Your task to perform on an android device: install app "Pandora - Music & Podcasts" Image 0: 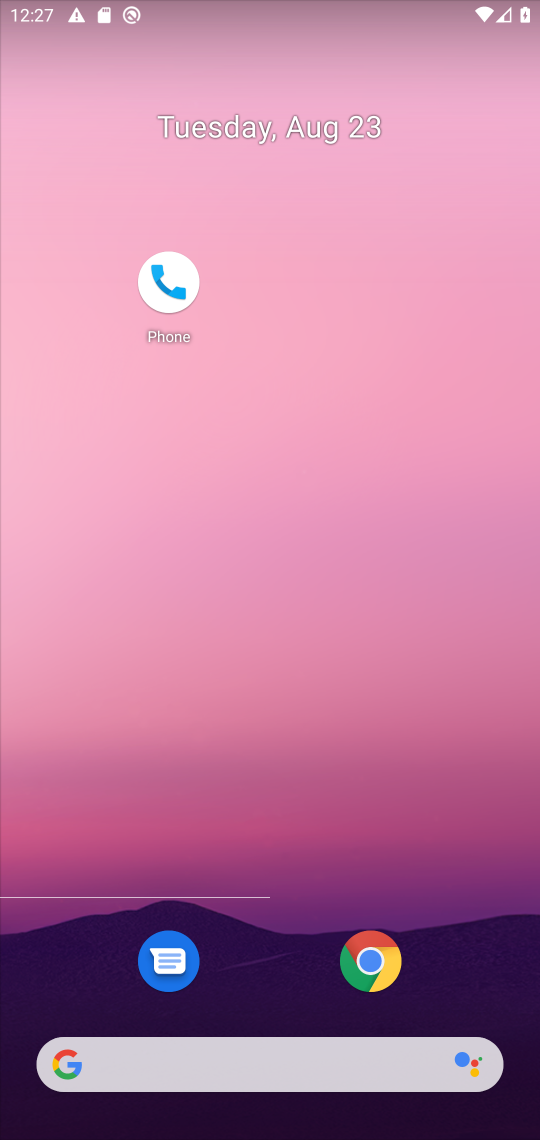
Step 0: drag from (282, 966) to (280, 85)
Your task to perform on an android device: install app "Pandora - Music & Podcasts" Image 1: 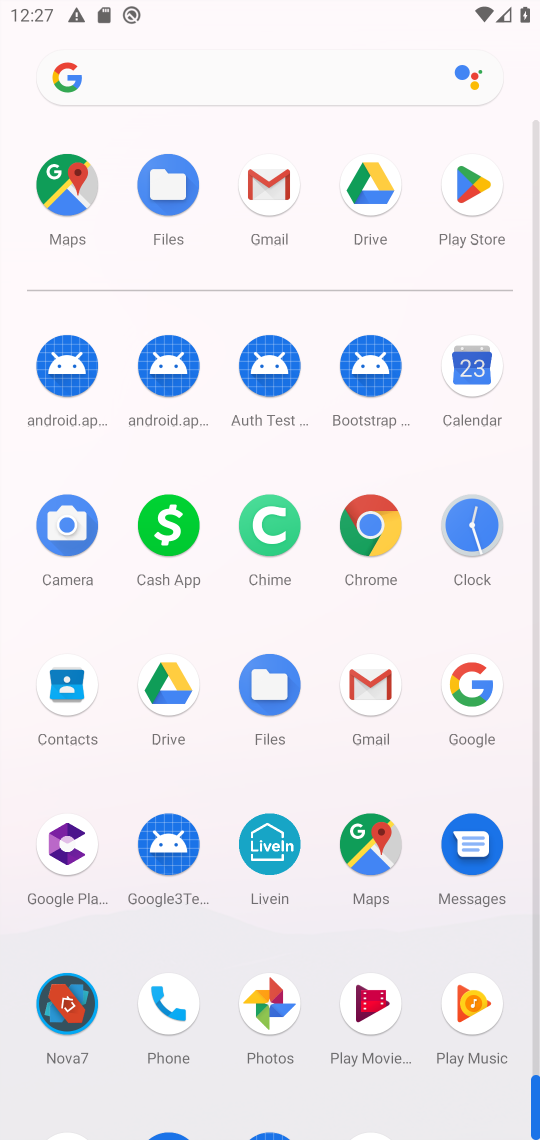
Step 1: click (445, 241)
Your task to perform on an android device: install app "Pandora - Music & Podcasts" Image 2: 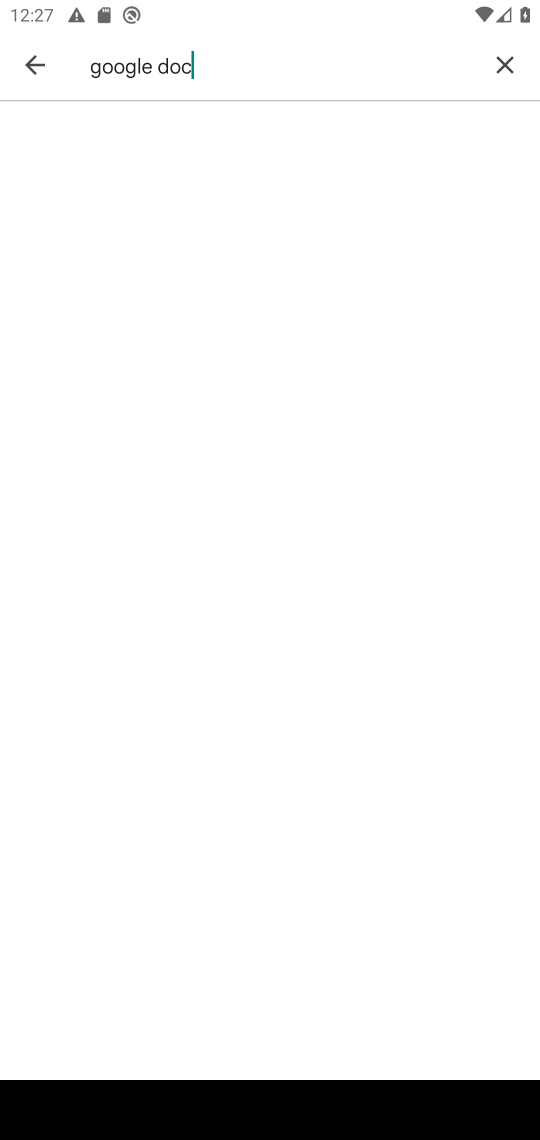
Step 2: press home button
Your task to perform on an android device: install app "Pandora - Music & Podcasts" Image 3: 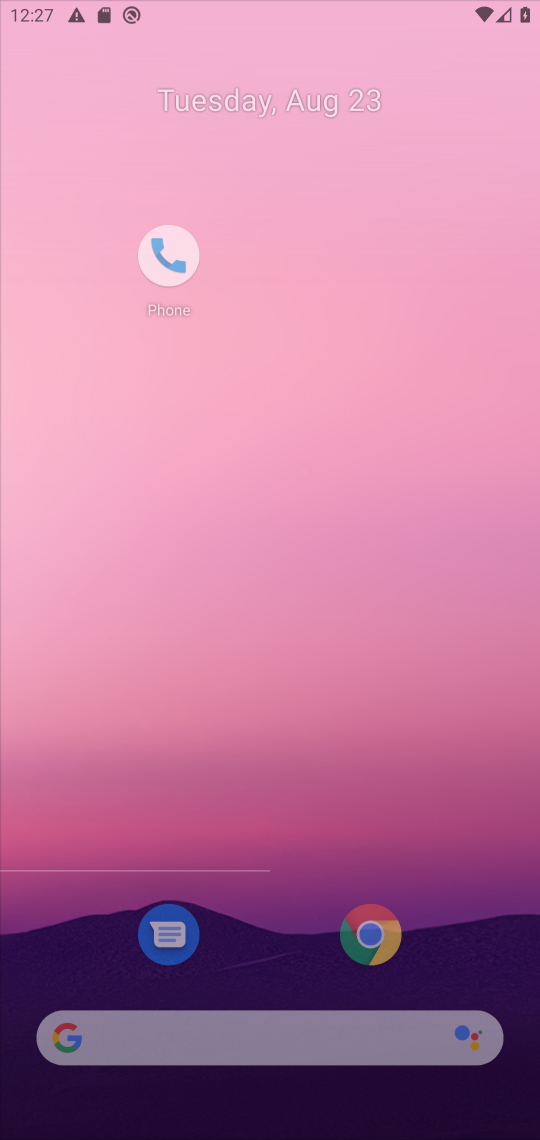
Step 3: click (321, 183)
Your task to perform on an android device: install app "Pandora - Music & Podcasts" Image 4: 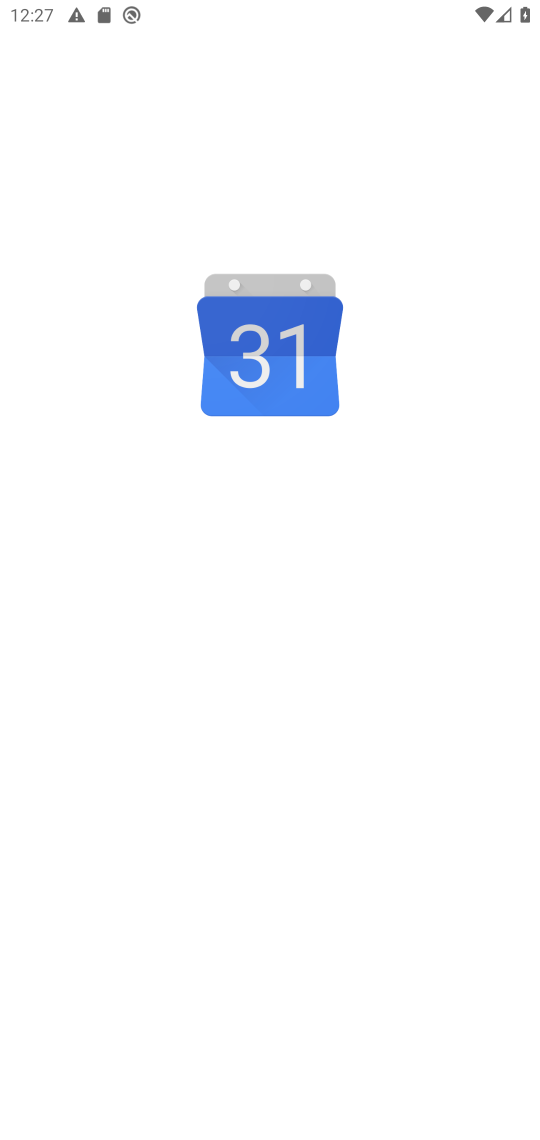
Step 4: drag from (295, 977) to (416, 395)
Your task to perform on an android device: install app "Pandora - Music & Podcasts" Image 5: 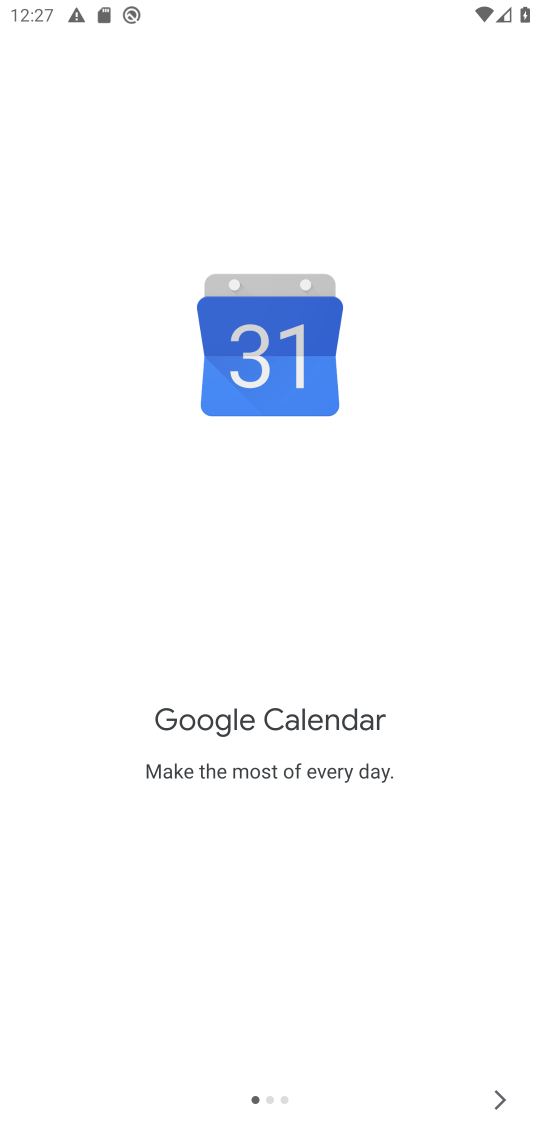
Step 5: press home button
Your task to perform on an android device: install app "Pandora - Music & Podcasts" Image 6: 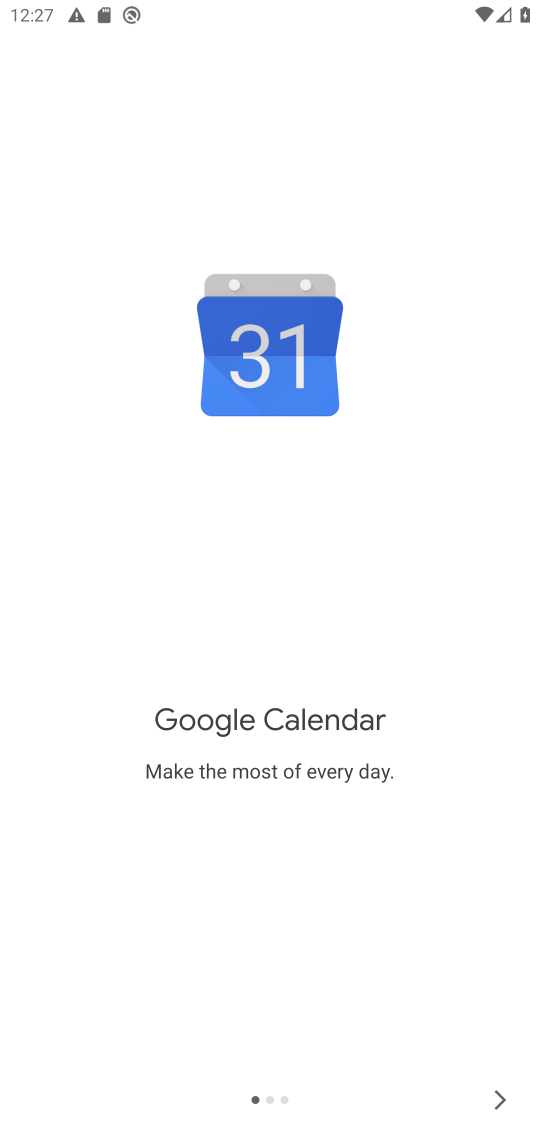
Step 6: press home button
Your task to perform on an android device: install app "Pandora - Music & Podcasts" Image 7: 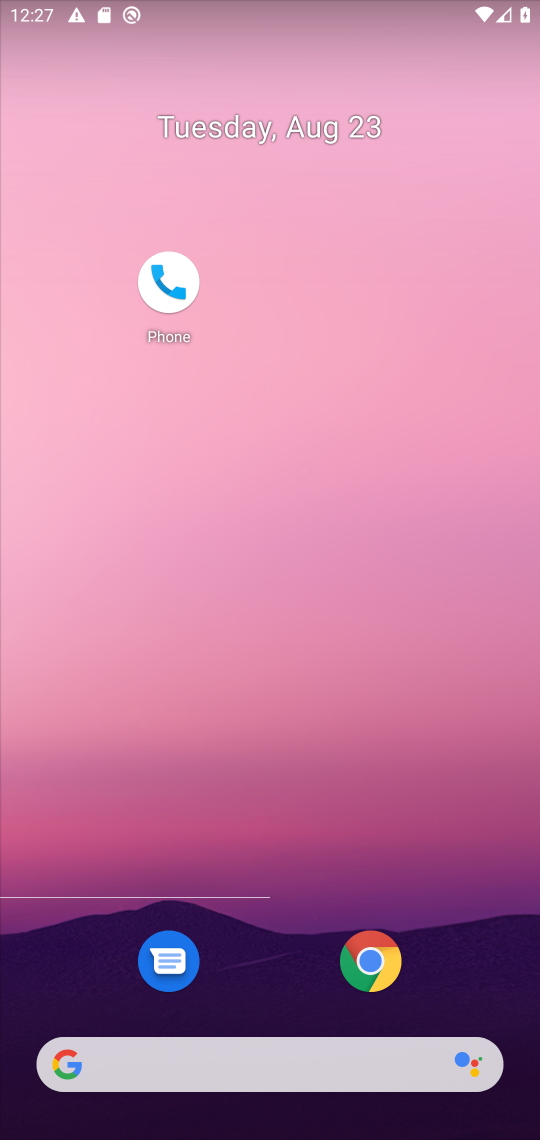
Step 7: drag from (283, 1007) to (292, 162)
Your task to perform on an android device: install app "Pandora - Music & Podcasts" Image 8: 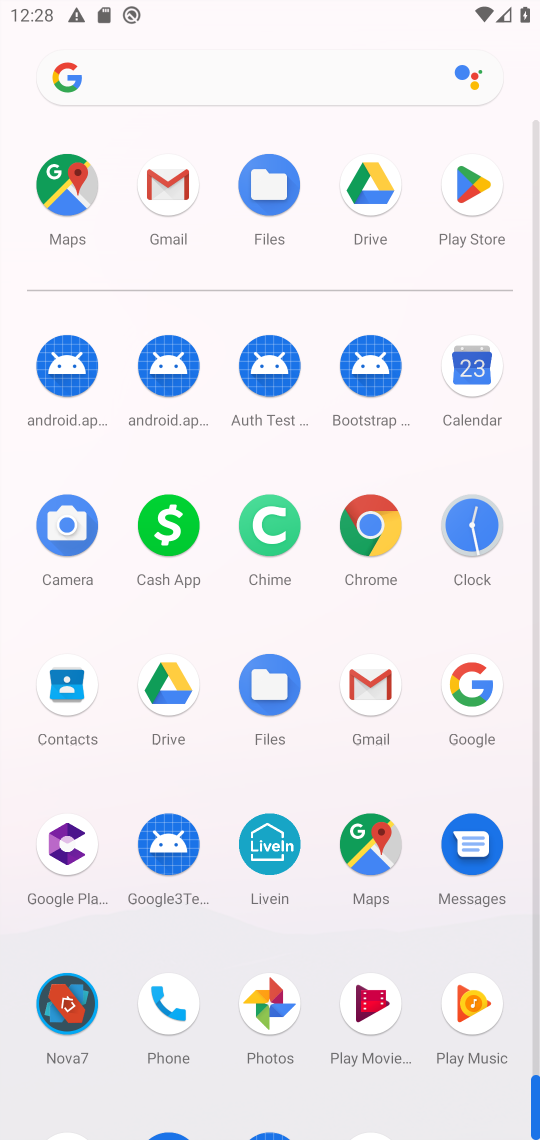
Step 8: click (473, 205)
Your task to perform on an android device: install app "Pandora - Music & Podcasts" Image 9: 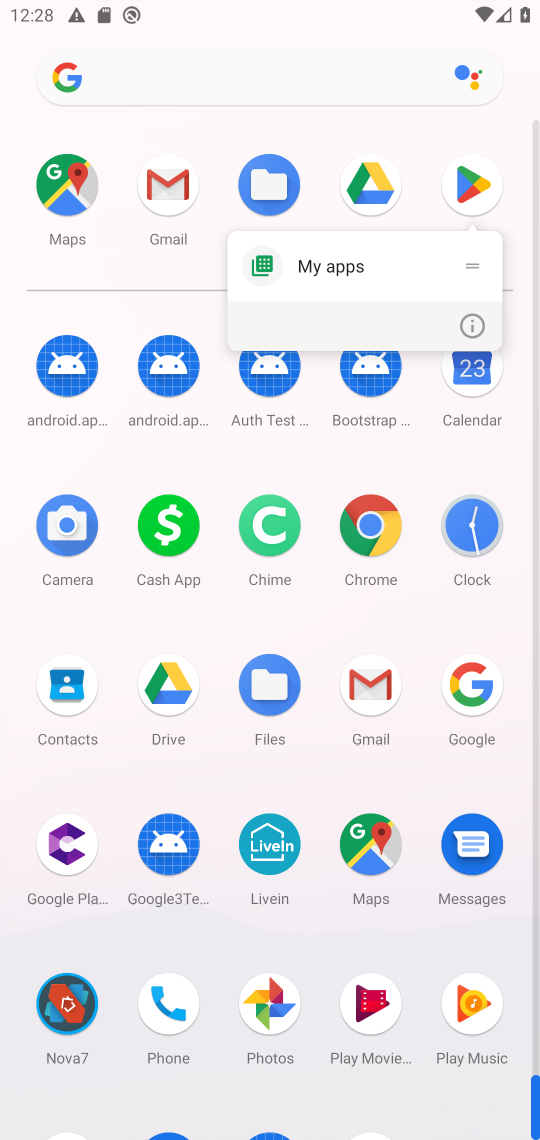
Step 9: click (473, 205)
Your task to perform on an android device: install app "Pandora - Music & Podcasts" Image 10: 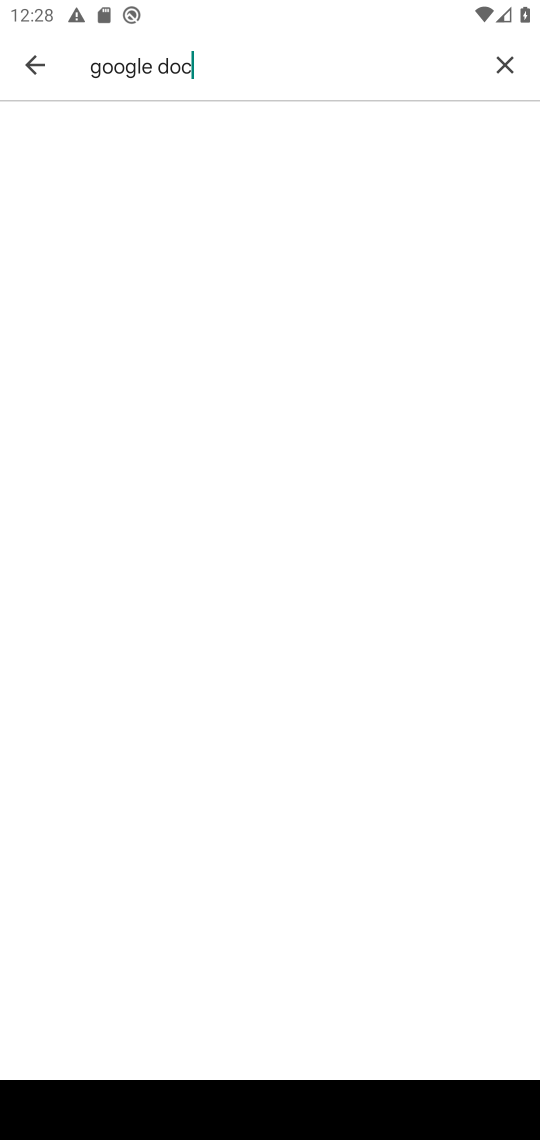
Step 10: click (493, 56)
Your task to perform on an android device: install app "Pandora - Music & Podcasts" Image 11: 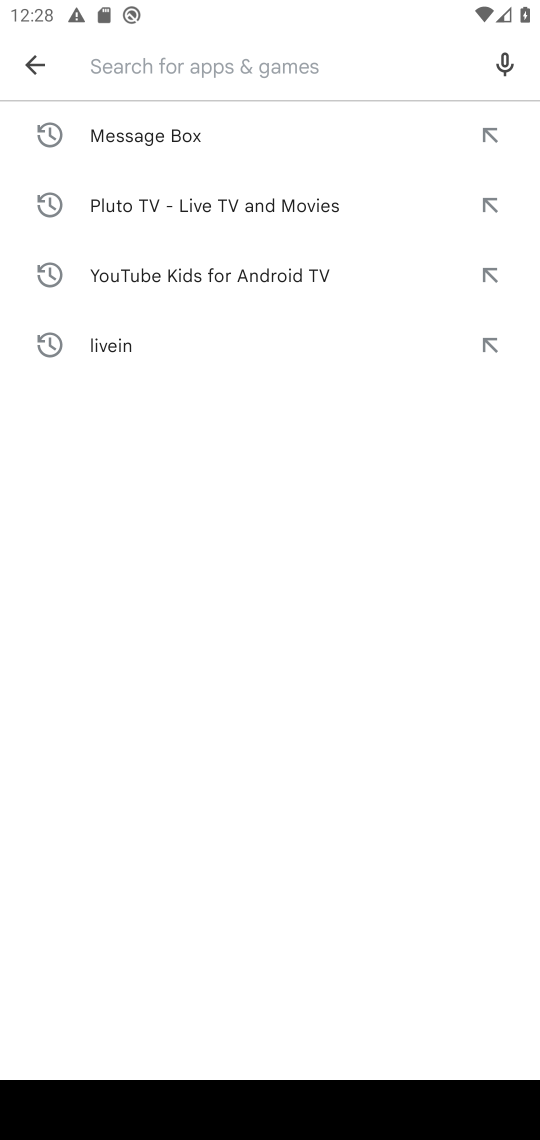
Step 11: type "pandora"
Your task to perform on an android device: install app "Pandora - Music & Podcasts" Image 12: 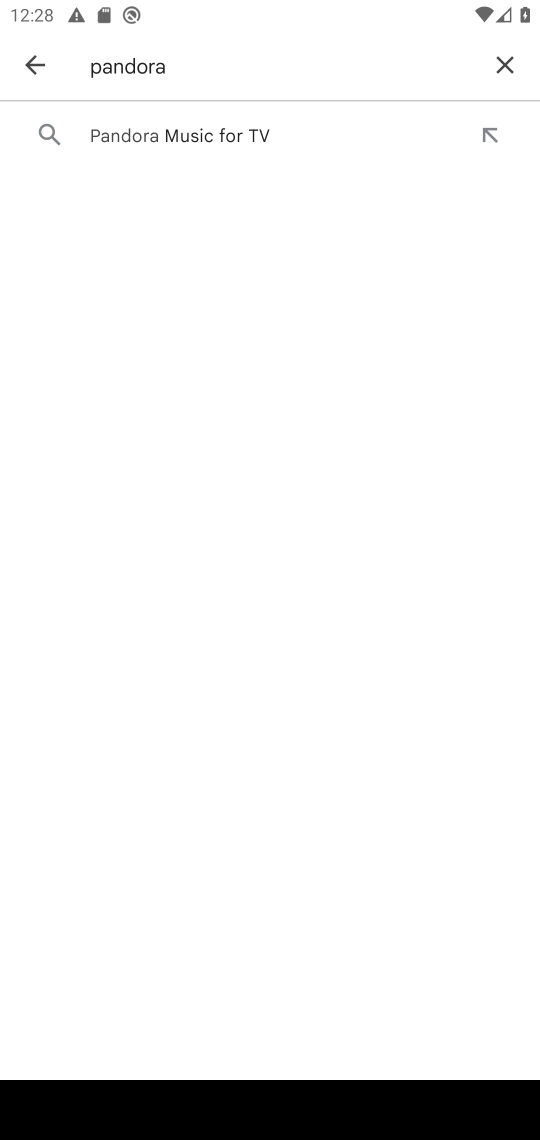
Step 12: click (247, 151)
Your task to perform on an android device: install app "Pandora - Music & Podcasts" Image 13: 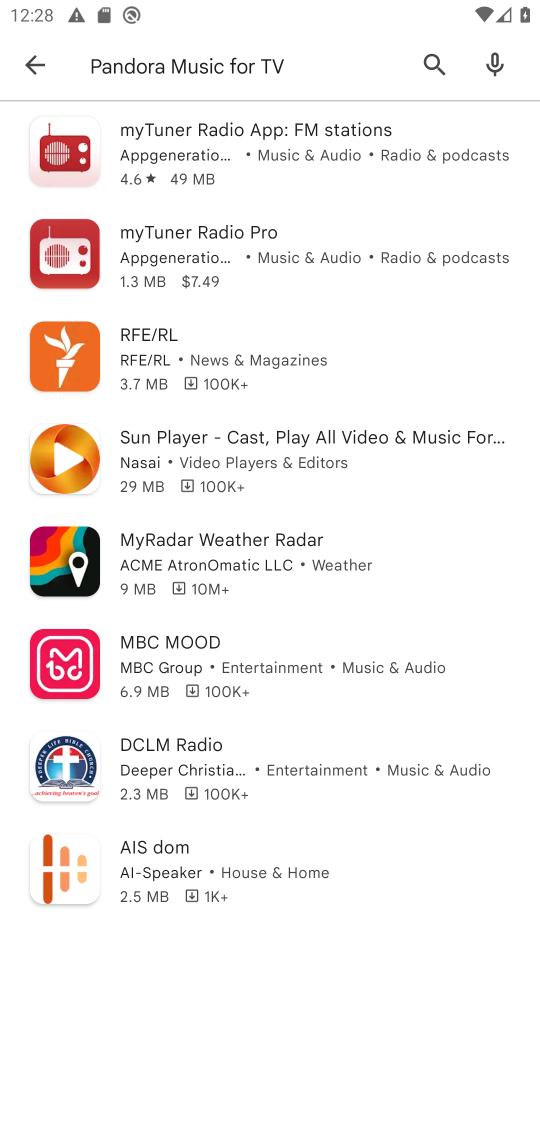
Step 13: task complete